Your task to perform on an android device: open app "Adobe Acrobat Reader" Image 0: 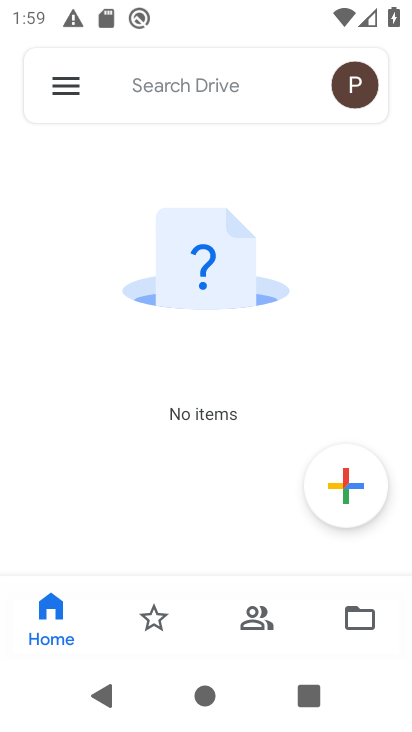
Step 0: press home button
Your task to perform on an android device: open app "Adobe Acrobat Reader" Image 1: 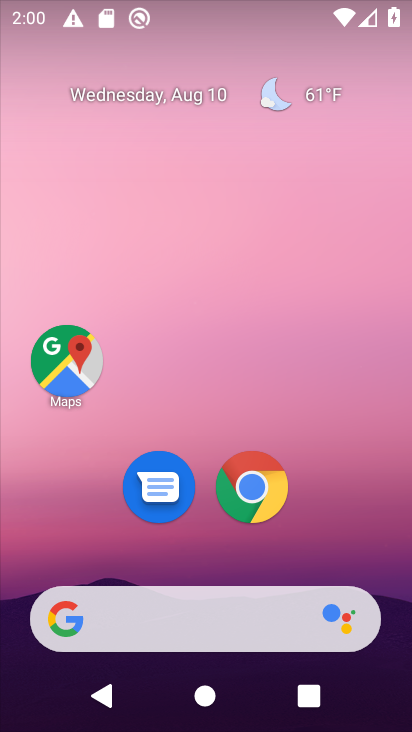
Step 1: drag from (151, 341) to (133, 187)
Your task to perform on an android device: open app "Adobe Acrobat Reader" Image 2: 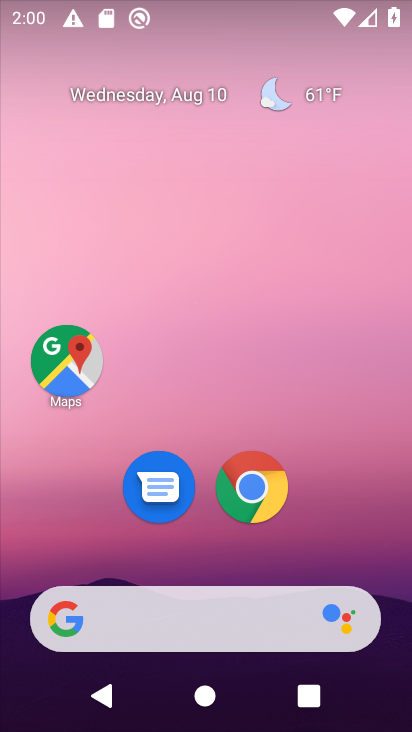
Step 2: press home button
Your task to perform on an android device: open app "Adobe Acrobat Reader" Image 3: 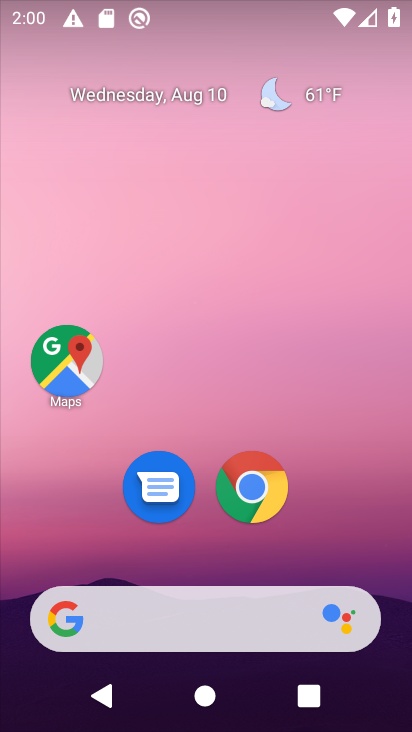
Step 3: drag from (200, 588) to (174, 168)
Your task to perform on an android device: open app "Adobe Acrobat Reader" Image 4: 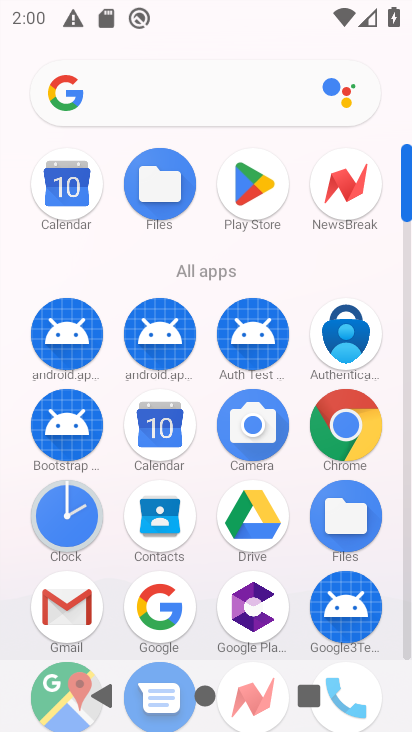
Step 4: click (243, 207)
Your task to perform on an android device: open app "Adobe Acrobat Reader" Image 5: 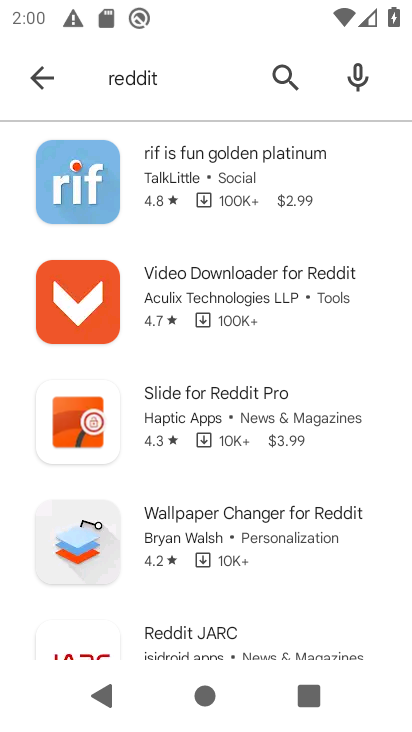
Step 5: click (278, 72)
Your task to perform on an android device: open app "Adobe Acrobat Reader" Image 6: 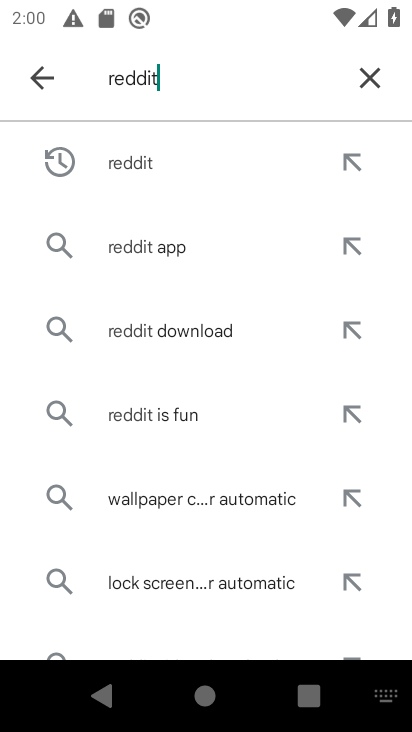
Step 6: click (363, 75)
Your task to perform on an android device: open app "Adobe Acrobat Reader" Image 7: 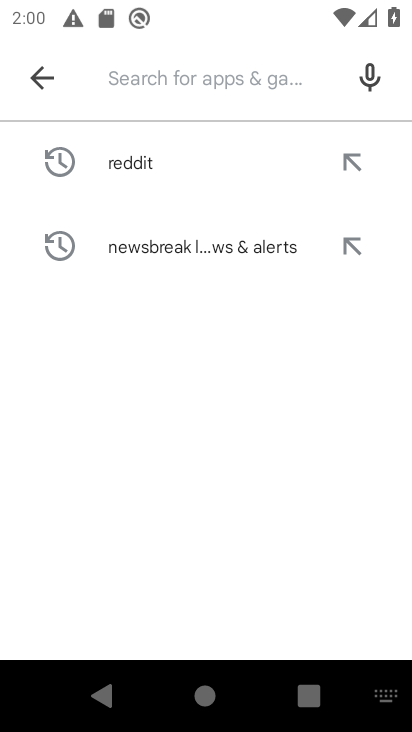
Step 7: type "Adobe Acrobat Reader"
Your task to perform on an android device: open app "Adobe Acrobat Reader" Image 8: 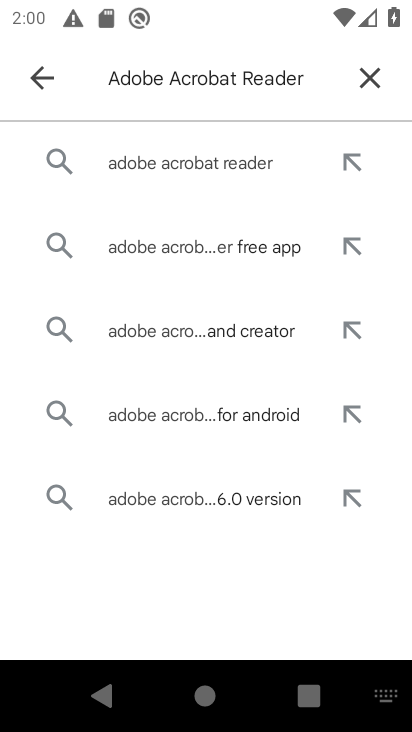
Step 8: click (151, 164)
Your task to perform on an android device: open app "Adobe Acrobat Reader" Image 9: 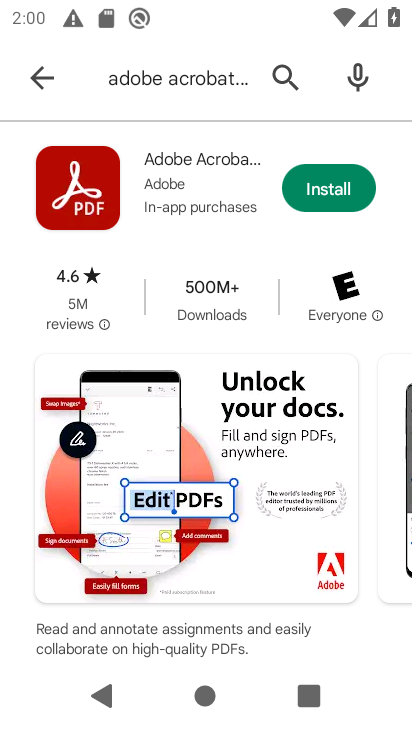
Step 9: click (320, 192)
Your task to perform on an android device: open app "Adobe Acrobat Reader" Image 10: 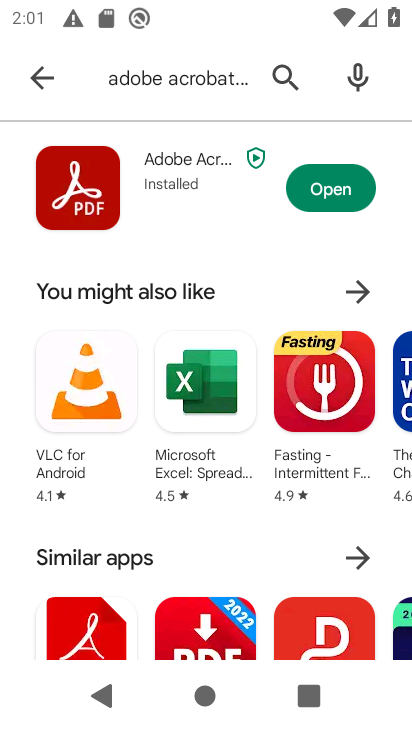
Step 10: click (321, 187)
Your task to perform on an android device: open app "Adobe Acrobat Reader" Image 11: 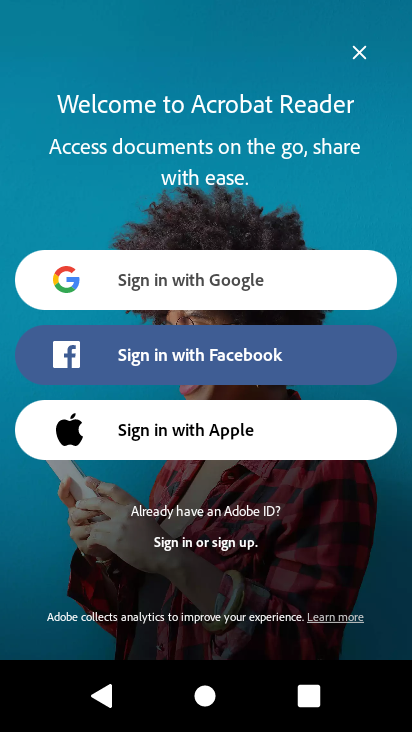
Step 11: task complete